Your task to perform on an android device: Open Android settings Image 0: 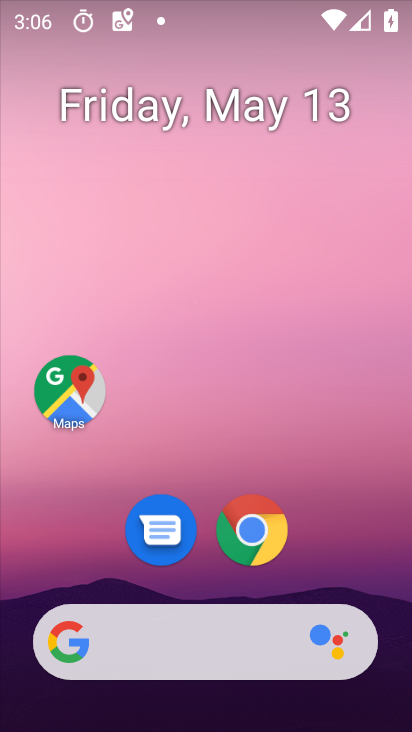
Step 0: drag from (350, 546) to (292, 126)
Your task to perform on an android device: Open Android settings Image 1: 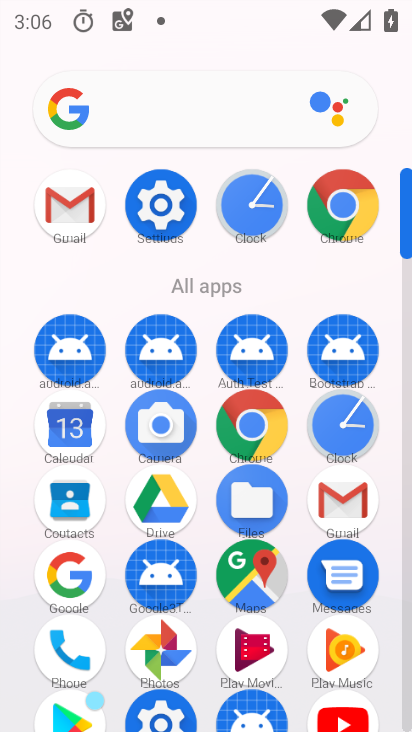
Step 1: click (162, 197)
Your task to perform on an android device: Open Android settings Image 2: 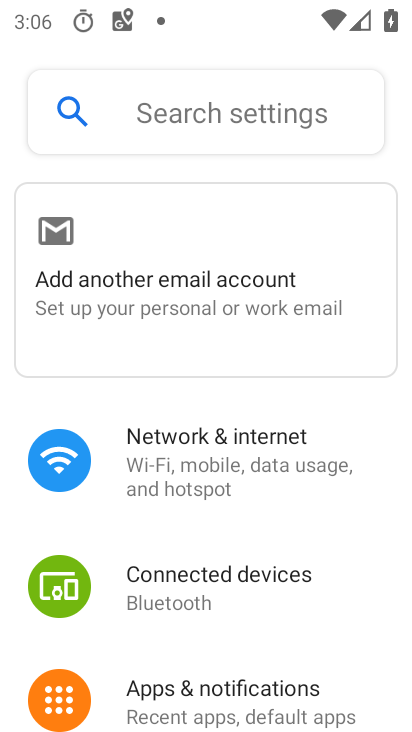
Step 2: task complete